Your task to perform on an android device: Open Google Maps Image 0: 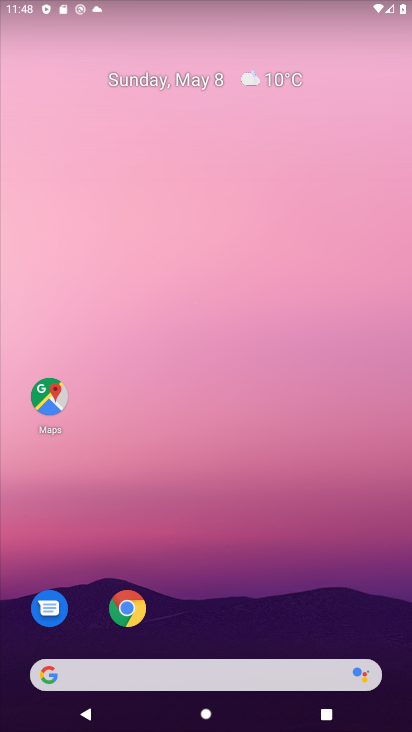
Step 0: click (66, 392)
Your task to perform on an android device: Open Google Maps Image 1: 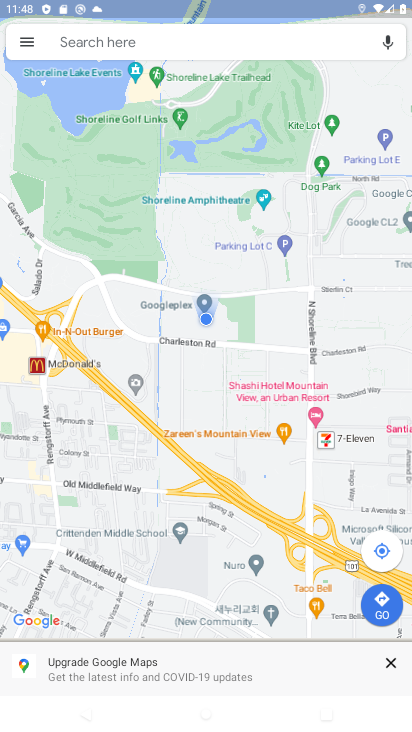
Step 1: task complete